Your task to perform on an android device: Open battery settings Image 0: 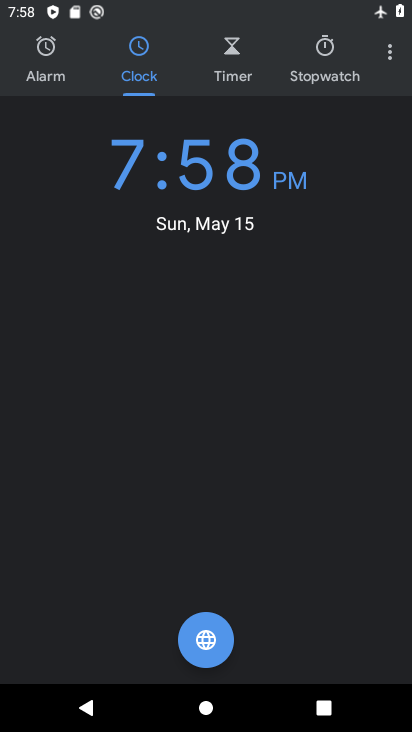
Step 0: press back button
Your task to perform on an android device: Open battery settings Image 1: 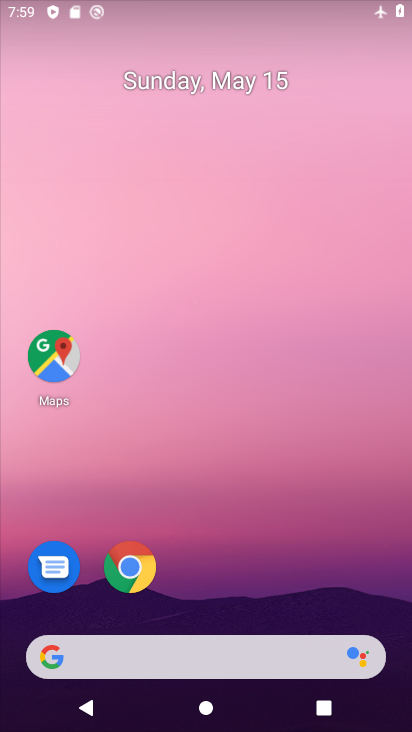
Step 1: drag from (181, 553) to (301, 27)
Your task to perform on an android device: Open battery settings Image 2: 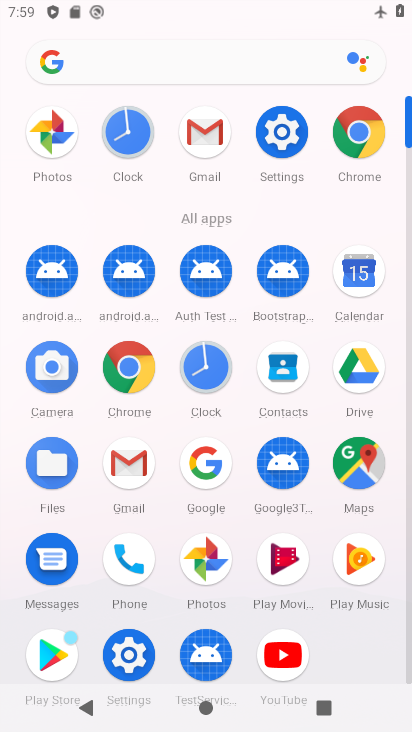
Step 2: click (278, 134)
Your task to perform on an android device: Open battery settings Image 3: 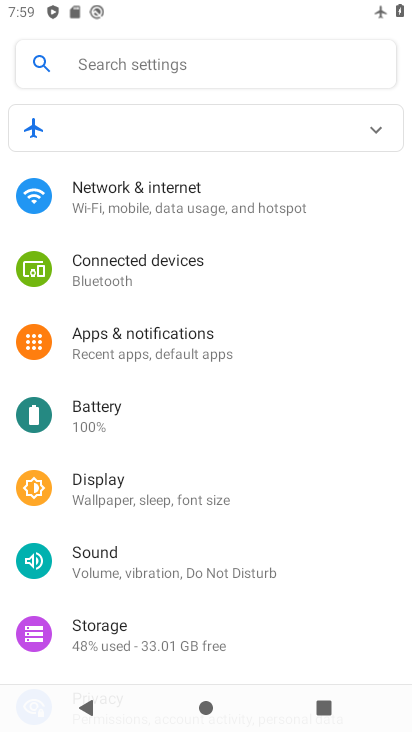
Step 3: click (107, 427)
Your task to perform on an android device: Open battery settings Image 4: 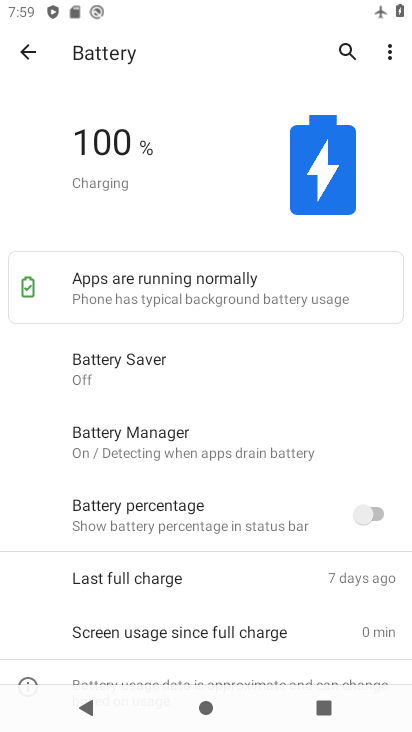
Step 4: task complete